Your task to perform on an android device: toggle show notifications on the lock screen Image 0: 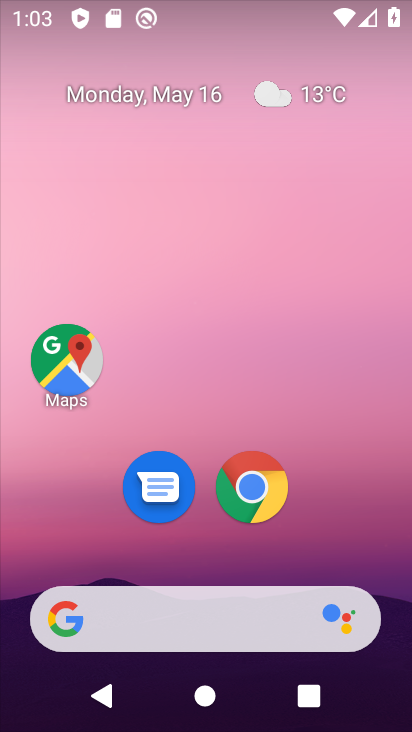
Step 0: click (165, 614)
Your task to perform on an android device: toggle show notifications on the lock screen Image 1: 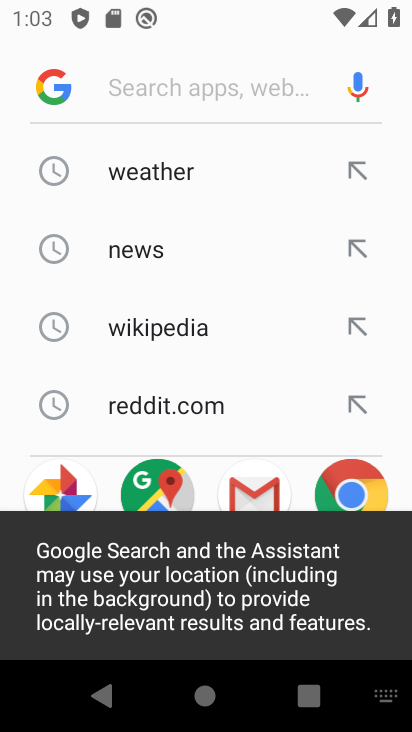
Step 1: press home button
Your task to perform on an android device: toggle show notifications on the lock screen Image 2: 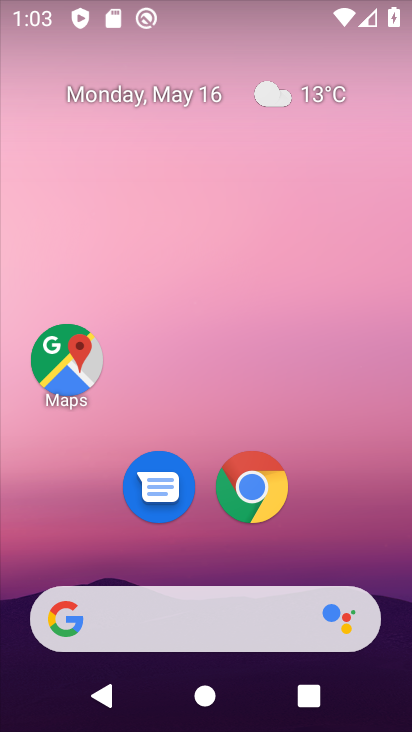
Step 2: drag from (223, 554) to (179, 132)
Your task to perform on an android device: toggle show notifications on the lock screen Image 3: 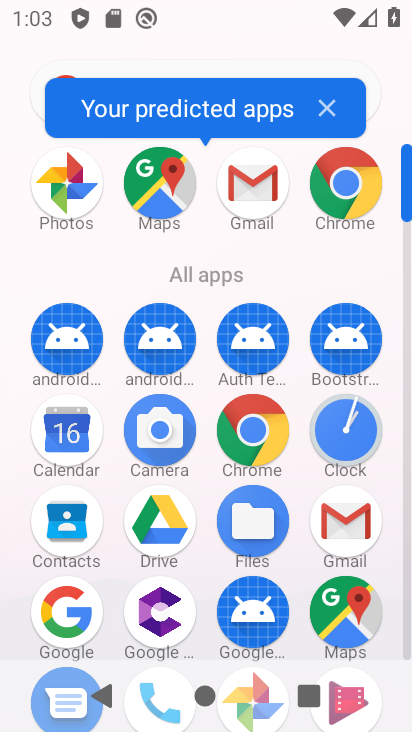
Step 3: drag from (203, 617) to (227, 287)
Your task to perform on an android device: toggle show notifications on the lock screen Image 4: 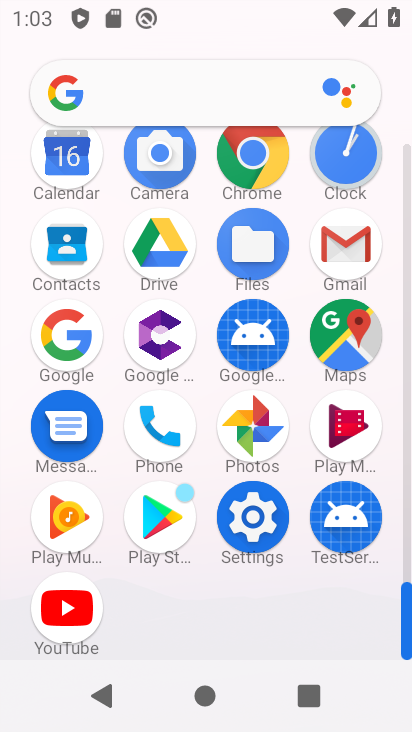
Step 4: click (247, 513)
Your task to perform on an android device: toggle show notifications on the lock screen Image 5: 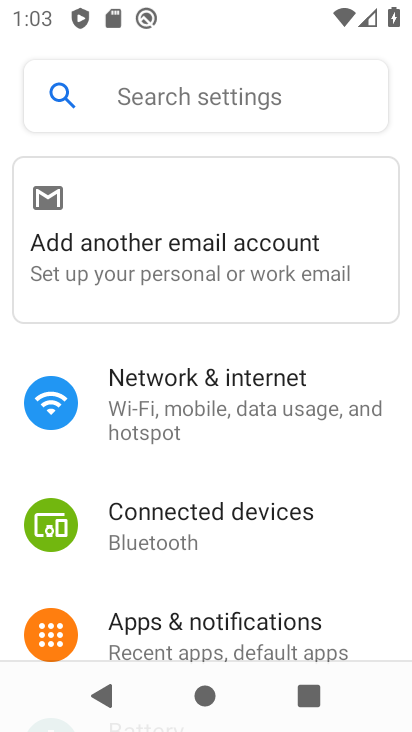
Step 5: click (294, 608)
Your task to perform on an android device: toggle show notifications on the lock screen Image 6: 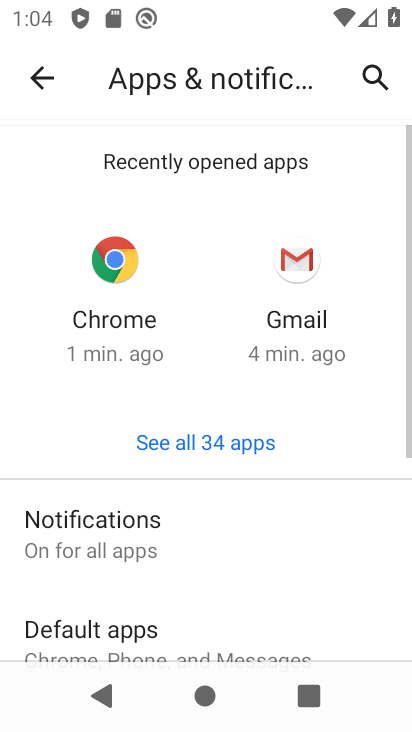
Step 6: drag from (294, 608) to (255, 176)
Your task to perform on an android device: toggle show notifications on the lock screen Image 7: 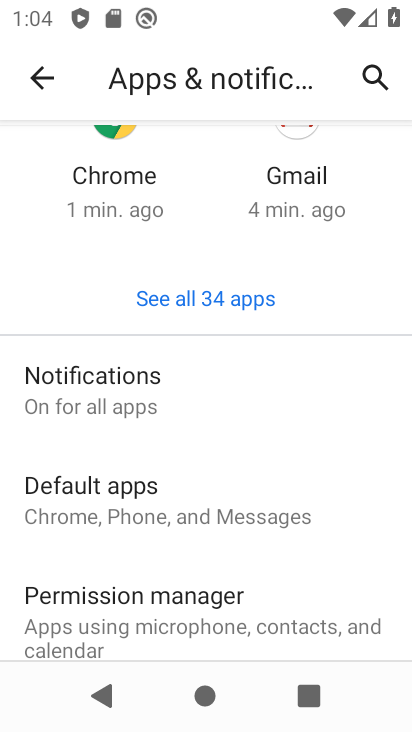
Step 7: drag from (247, 605) to (301, 225)
Your task to perform on an android device: toggle show notifications on the lock screen Image 8: 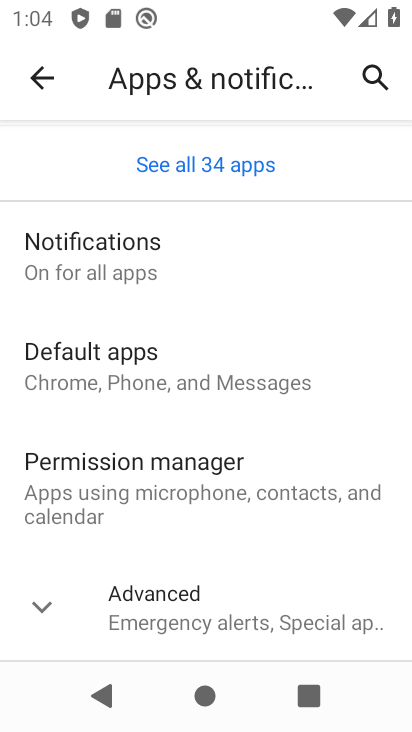
Step 8: click (168, 256)
Your task to perform on an android device: toggle show notifications on the lock screen Image 9: 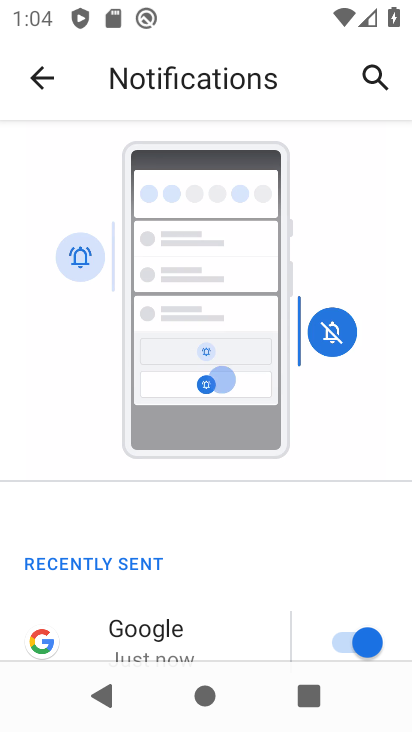
Step 9: drag from (187, 633) to (215, 387)
Your task to perform on an android device: toggle show notifications on the lock screen Image 10: 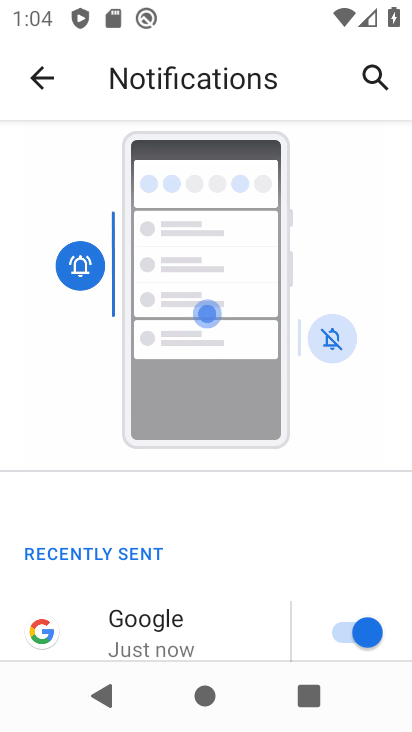
Step 10: drag from (142, 645) to (208, 240)
Your task to perform on an android device: toggle show notifications on the lock screen Image 11: 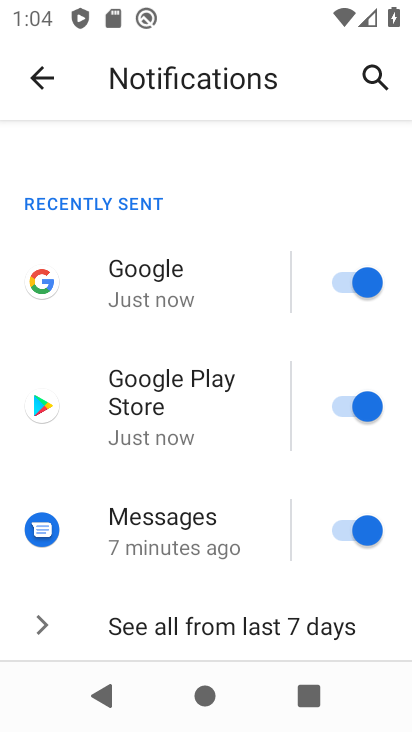
Step 11: drag from (209, 604) to (282, 187)
Your task to perform on an android device: toggle show notifications on the lock screen Image 12: 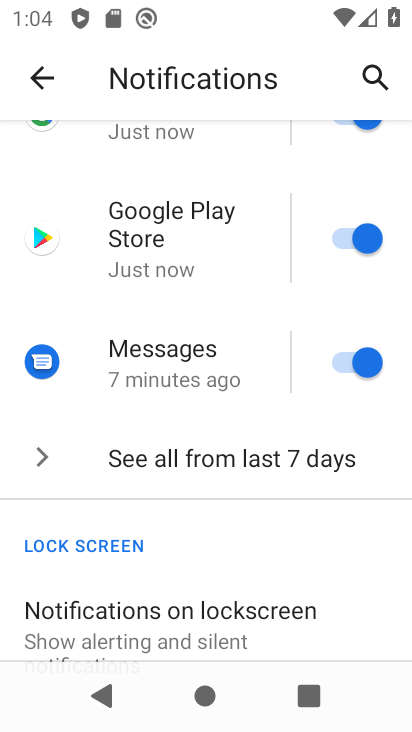
Step 12: click (122, 635)
Your task to perform on an android device: toggle show notifications on the lock screen Image 13: 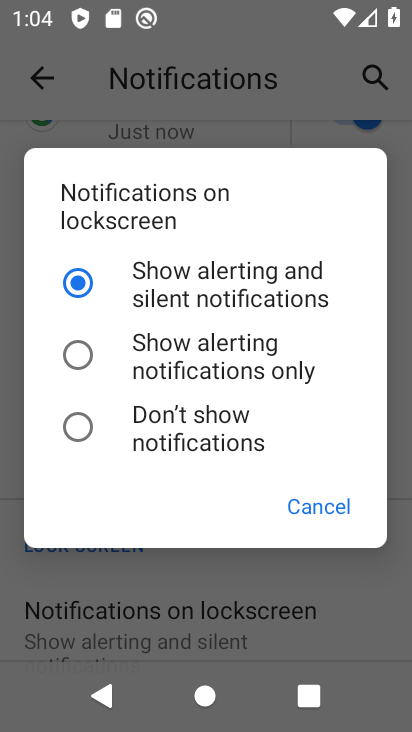
Step 13: click (189, 344)
Your task to perform on an android device: toggle show notifications on the lock screen Image 14: 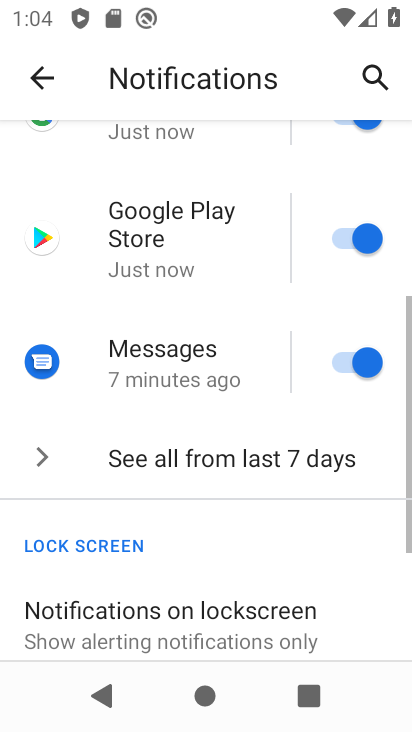
Step 14: task complete